Your task to perform on an android device: Search for pizza restaurants on Maps Image 0: 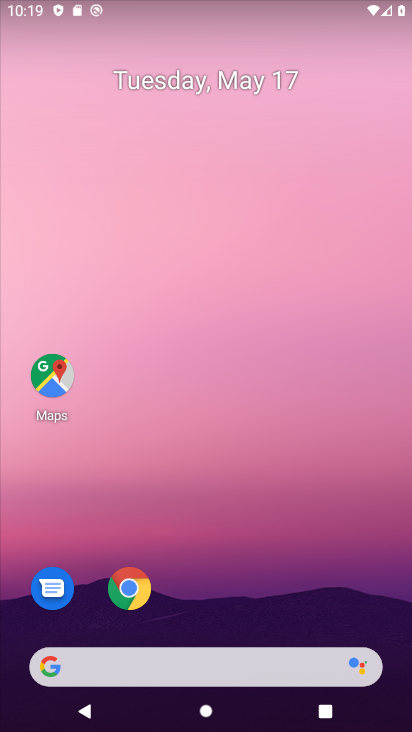
Step 0: click (50, 376)
Your task to perform on an android device: Search for pizza restaurants on Maps Image 1: 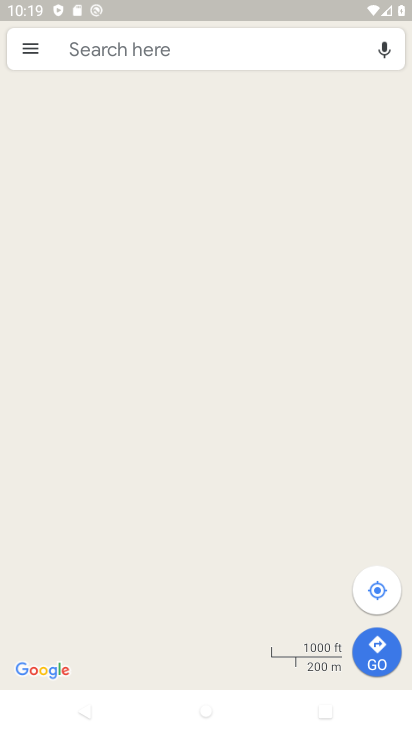
Step 1: click (158, 62)
Your task to perform on an android device: Search for pizza restaurants on Maps Image 2: 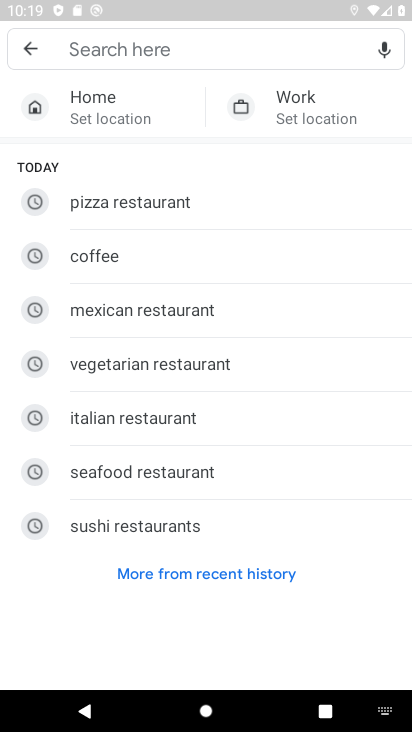
Step 2: type "pizza"
Your task to perform on an android device: Search for pizza restaurants on Maps Image 3: 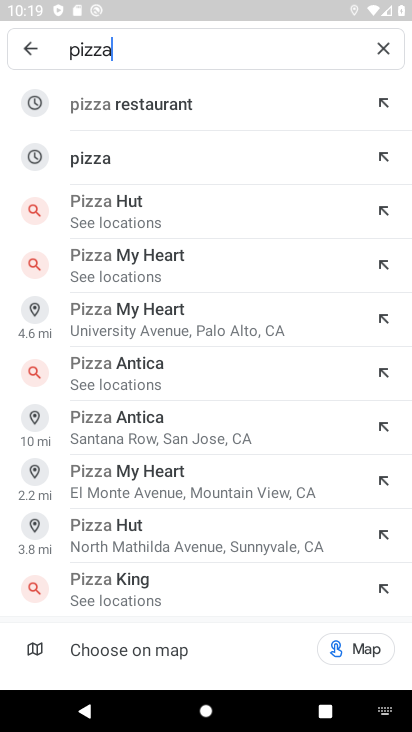
Step 3: click (158, 101)
Your task to perform on an android device: Search for pizza restaurants on Maps Image 4: 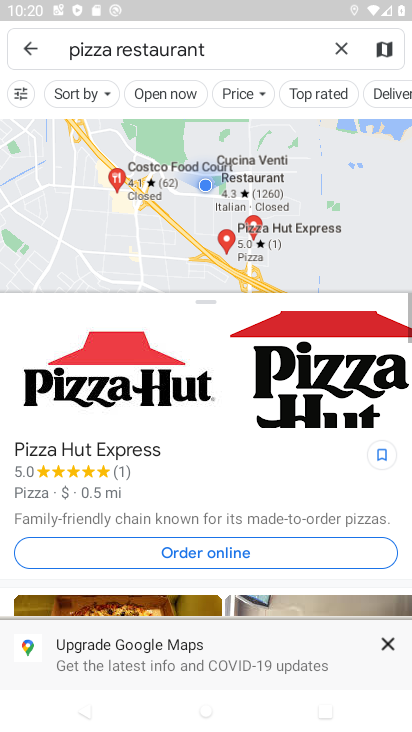
Step 4: task complete